Your task to perform on an android device: Open Google Maps and go to "Timeline" Image 0: 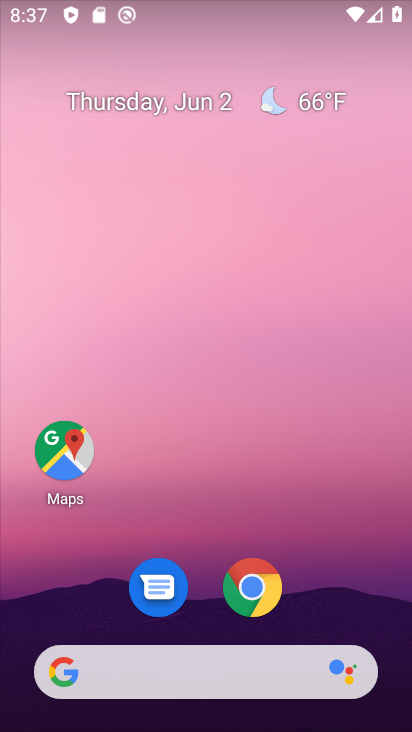
Step 0: click (54, 466)
Your task to perform on an android device: Open Google Maps and go to "Timeline" Image 1: 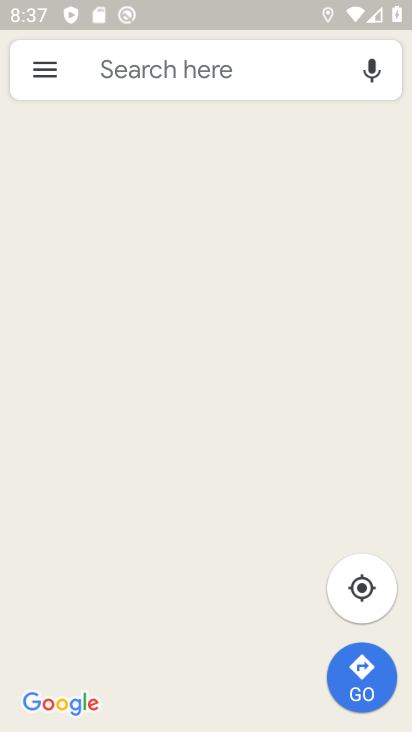
Step 1: click (30, 66)
Your task to perform on an android device: Open Google Maps and go to "Timeline" Image 2: 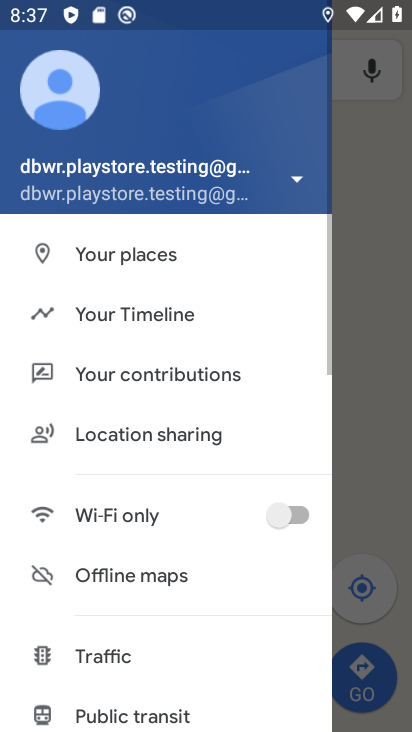
Step 2: click (163, 325)
Your task to perform on an android device: Open Google Maps and go to "Timeline" Image 3: 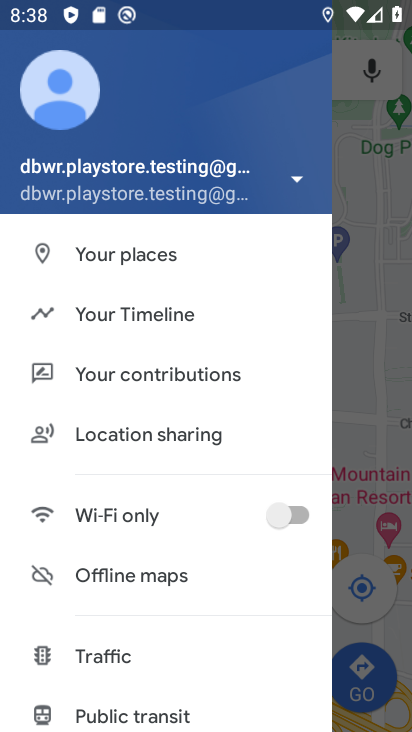
Step 3: click (142, 324)
Your task to perform on an android device: Open Google Maps and go to "Timeline" Image 4: 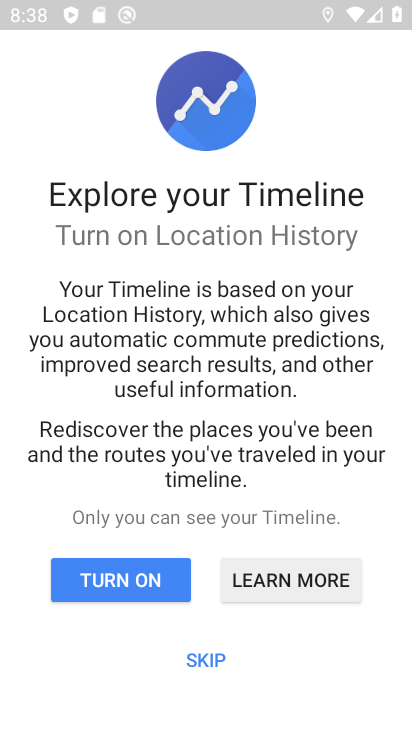
Step 4: click (188, 657)
Your task to perform on an android device: Open Google Maps and go to "Timeline" Image 5: 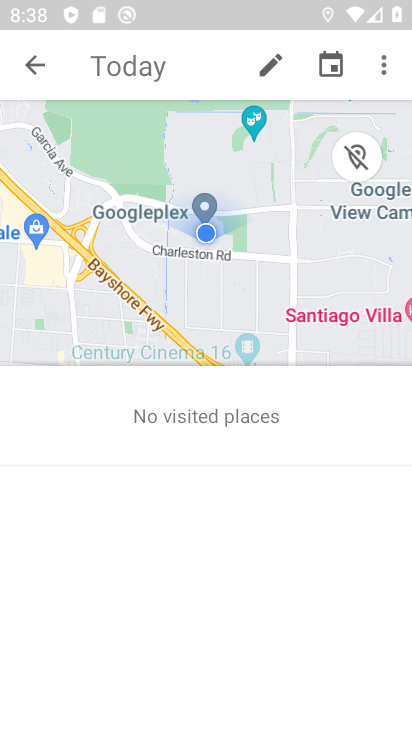
Step 5: task complete